Your task to perform on an android device: turn on location history Image 0: 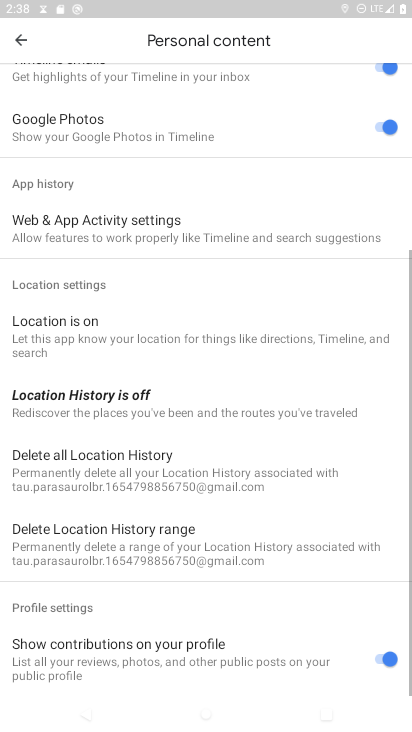
Step 0: press home button
Your task to perform on an android device: turn on location history Image 1: 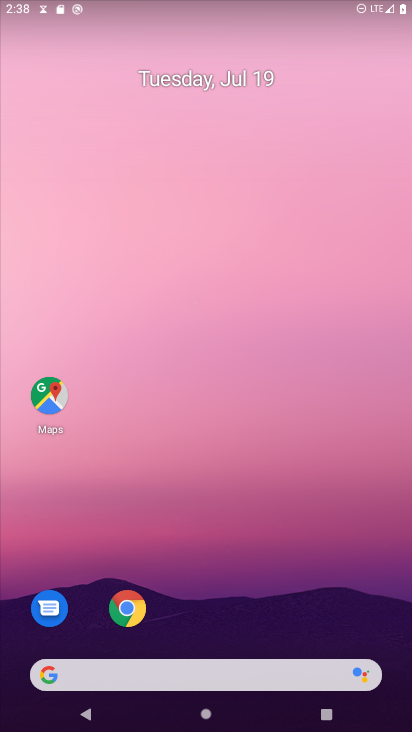
Step 1: drag from (205, 604) to (190, 15)
Your task to perform on an android device: turn on location history Image 2: 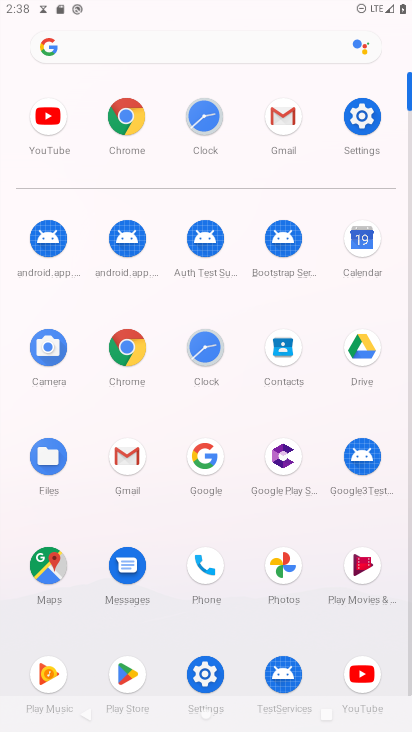
Step 2: click (361, 116)
Your task to perform on an android device: turn on location history Image 3: 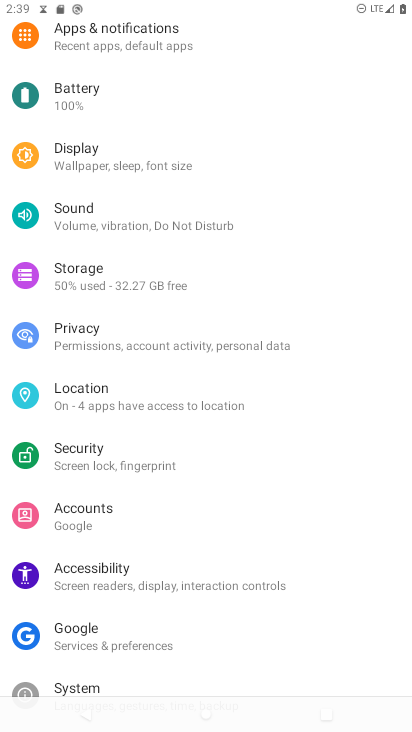
Step 3: click (137, 405)
Your task to perform on an android device: turn on location history Image 4: 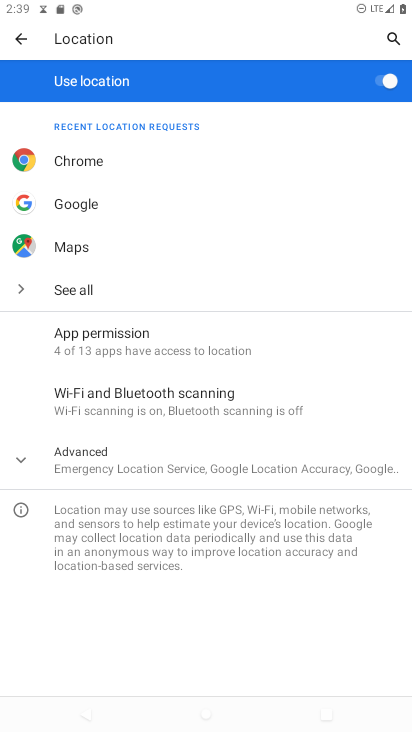
Step 4: click (188, 452)
Your task to perform on an android device: turn on location history Image 5: 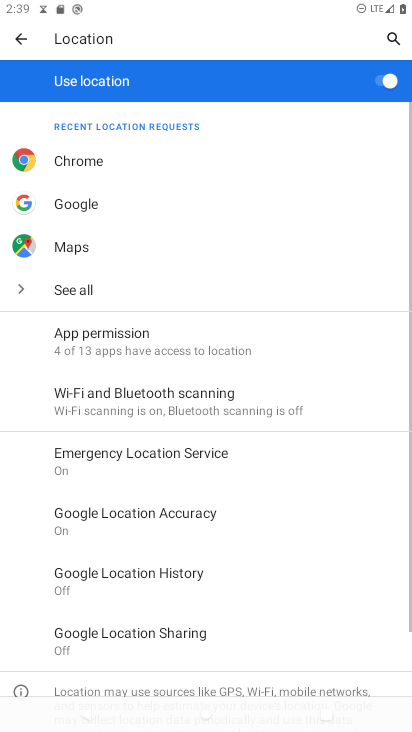
Step 5: click (187, 578)
Your task to perform on an android device: turn on location history Image 6: 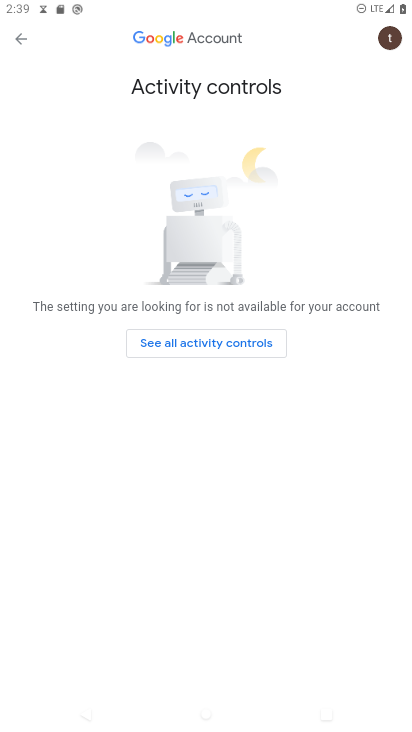
Step 6: click (226, 344)
Your task to perform on an android device: turn on location history Image 7: 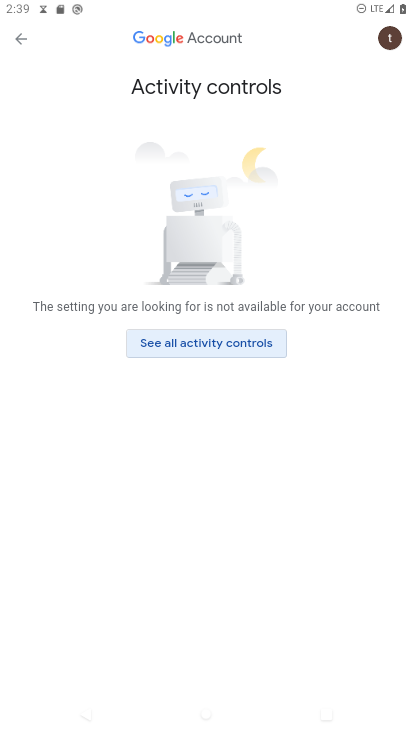
Step 7: click (226, 344)
Your task to perform on an android device: turn on location history Image 8: 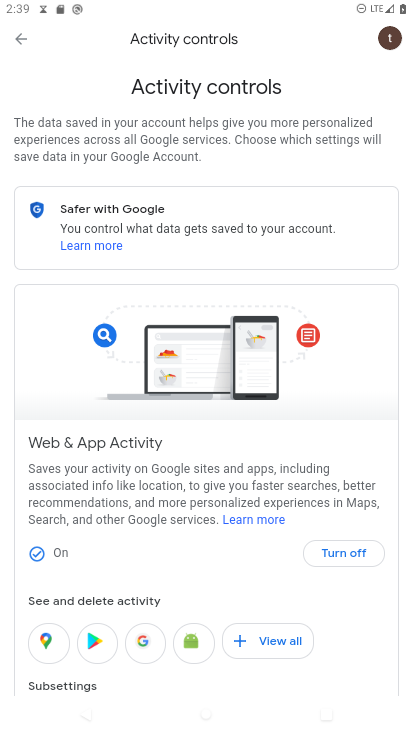
Step 8: task complete